Your task to perform on an android device: find which apps use the phone's location Image 0: 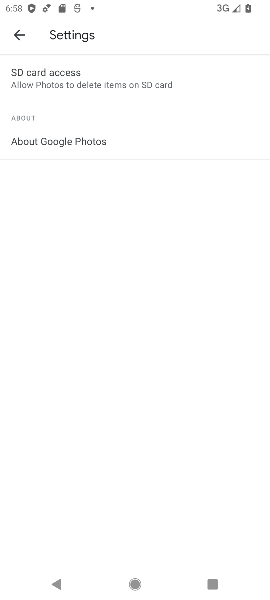
Step 0: press home button
Your task to perform on an android device: find which apps use the phone's location Image 1: 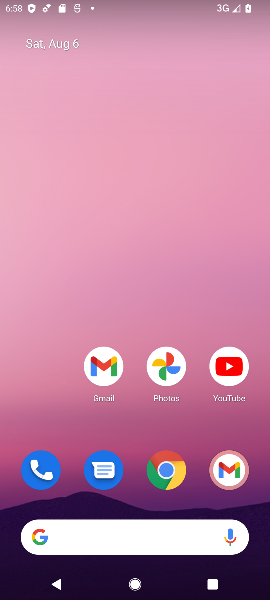
Step 1: press home button
Your task to perform on an android device: find which apps use the phone's location Image 2: 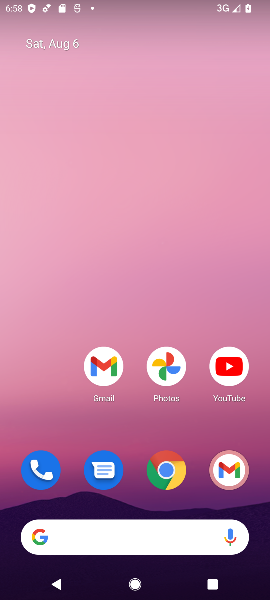
Step 2: drag from (51, 436) to (16, 53)
Your task to perform on an android device: find which apps use the phone's location Image 3: 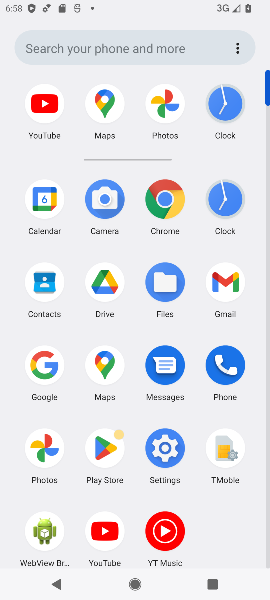
Step 3: click (227, 366)
Your task to perform on an android device: find which apps use the phone's location Image 4: 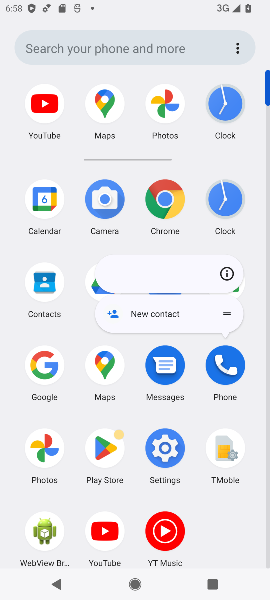
Step 4: click (224, 272)
Your task to perform on an android device: find which apps use the phone's location Image 5: 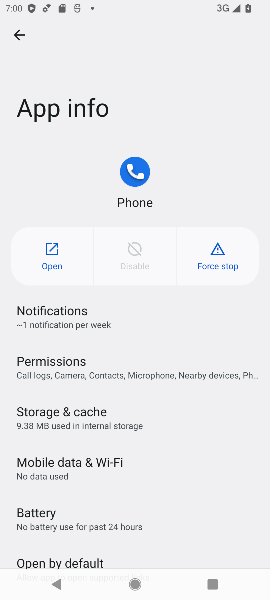
Step 5: click (63, 365)
Your task to perform on an android device: find which apps use the phone's location Image 6: 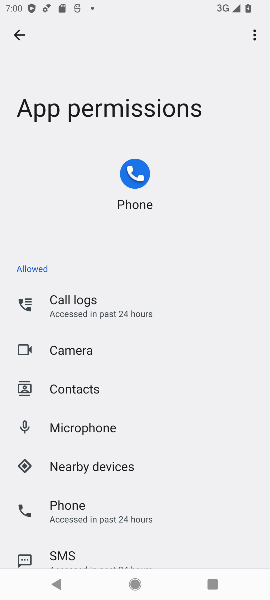
Step 6: drag from (138, 522) to (44, 236)
Your task to perform on an android device: find which apps use the phone's location Image 7: 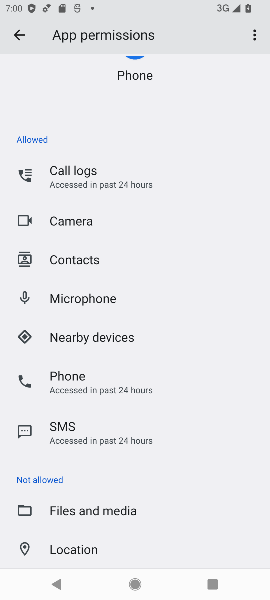
Step 7: click (82, 551)
Your task to perform on an android device: find which apps use the phone's location Image 8: 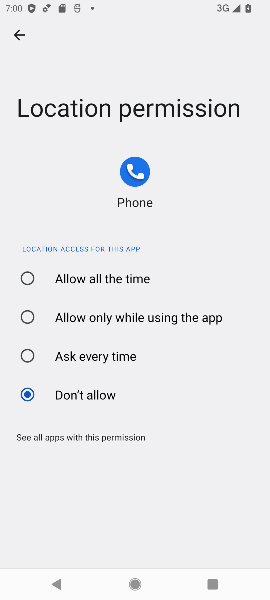
Step 8: click (79, 445)
Your task to perform on an android device: find which apps use the phone's location Image 9: 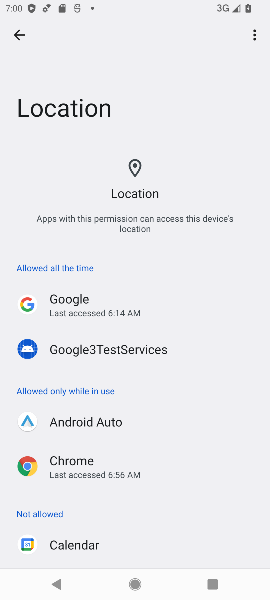
Step 9: task complete